Your task to perform on an android device: What's the time? Image 0: 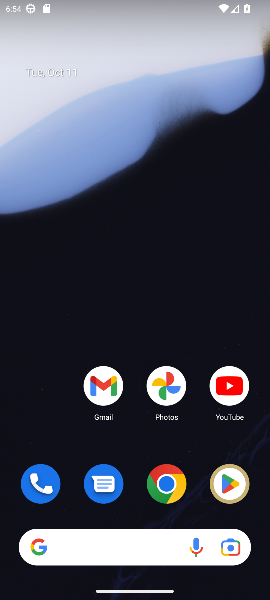
Step 0: click (166, 481)
Your task to perform on an android device: What's the time? Image 1: 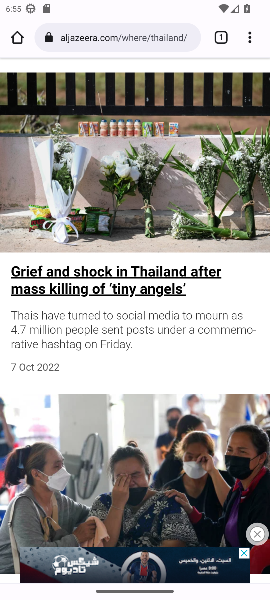
Step 1: click (156, 39)
Your task to perform on an android device: What's the time? Image 2: 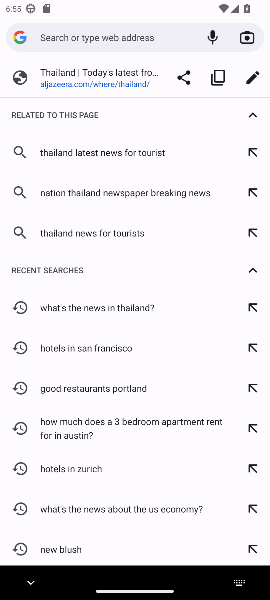
Step 2: type "What's the time?"
Your task to perform on an android device: What's the time? Image 3: 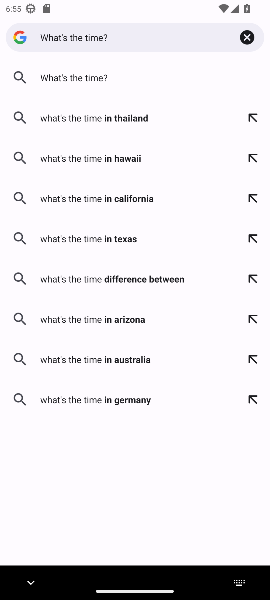
Step 3: click (101, 76)
Your task to perform on an android device: What's the time? Image 4: 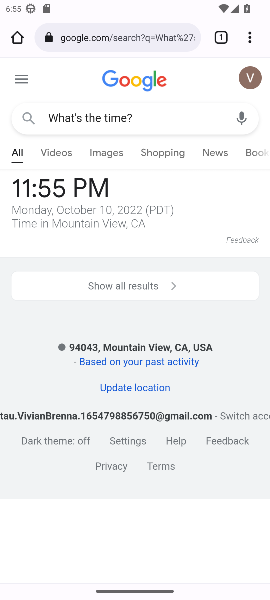
Step 4: task complete